Your task to perform on an android device: Show me the alarms in the clock app Image 0: 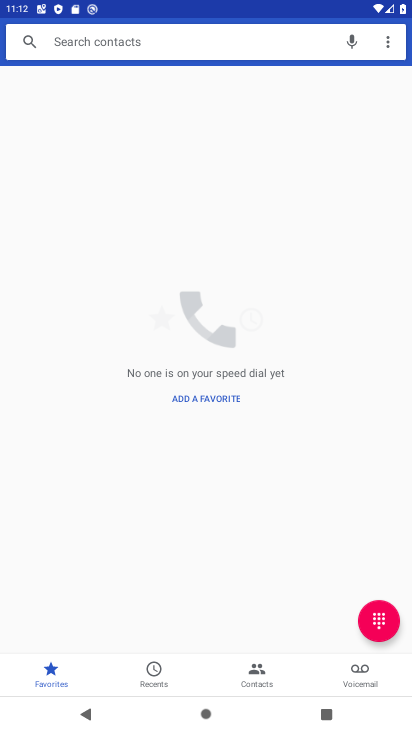
Step 0: press back button
Your task to perform on an android device: Show me the alarms in the clock app Image 1: 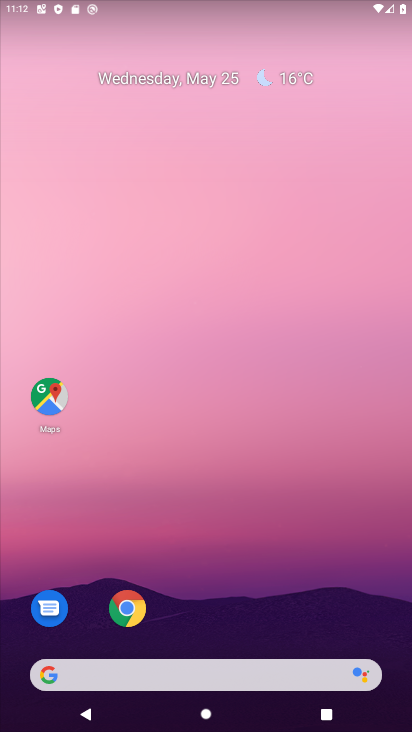
Step 1: drag from (219, 600) to (295, 60)
Your task to perform on an android device: Show me the alarms in the clock app Image 2: 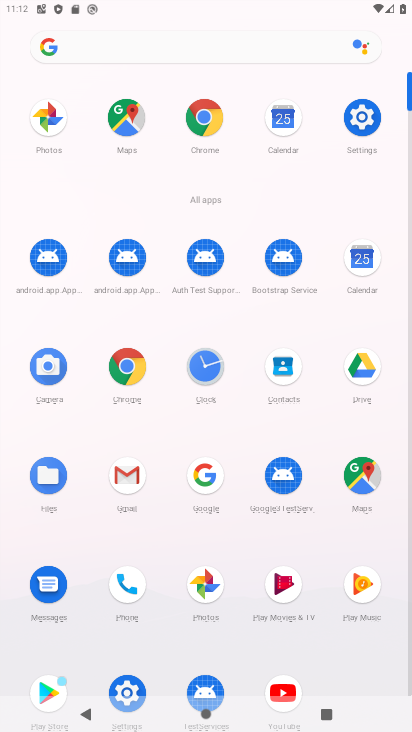
Step 2: click (205, 365)
Your task to perform on an android device: Show me the alarms in the clock app Image 3: 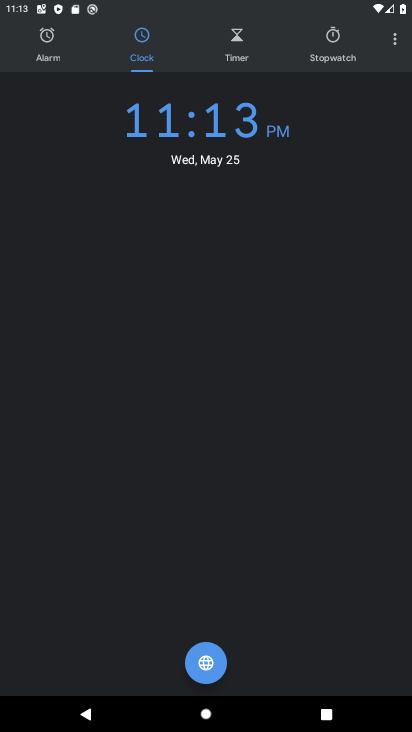
Step 3: click (64, 40)
Your task to perform on an android device: Show me the alarms in the clock app Image 4: 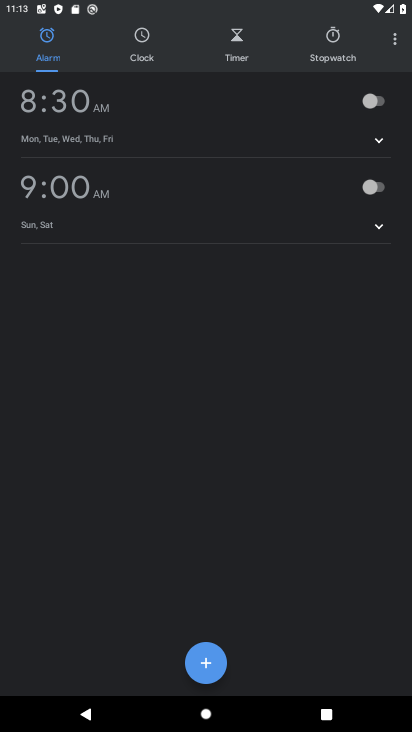
Step 4: task complete